Your task to perform on an android device: turn on translation in the chrome app Image 0: 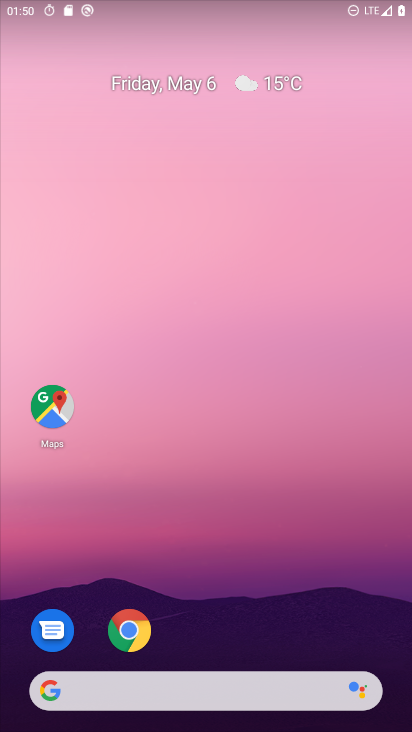
Step 0: click (142, 619)
Your task to perform on an android device: turn on translation in the chrome app Image 1: 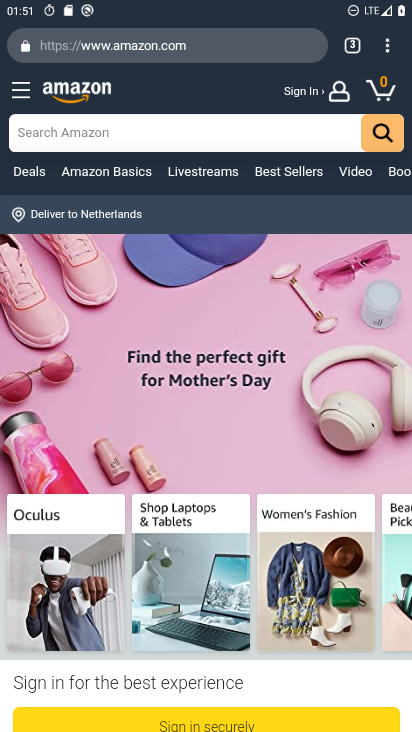
Step 1: drag from (389, 37) to (255, 608)
Your task to perform on an android device: turn on translation in the chrome app Image 2: 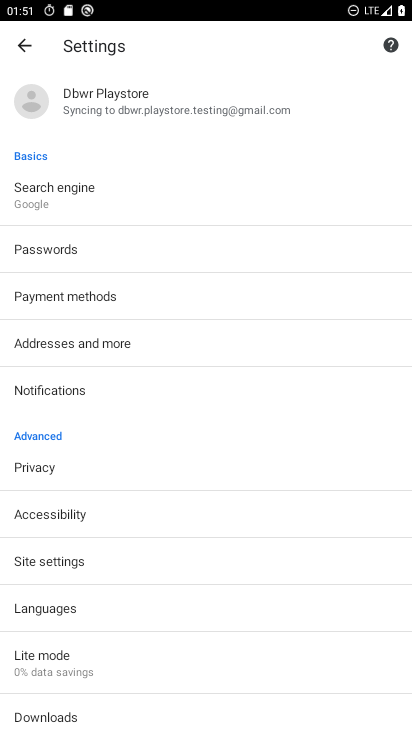
Step 2: click (93, 611)
Your task to perform on an android device: turn on translation in the chrome app Image 3: 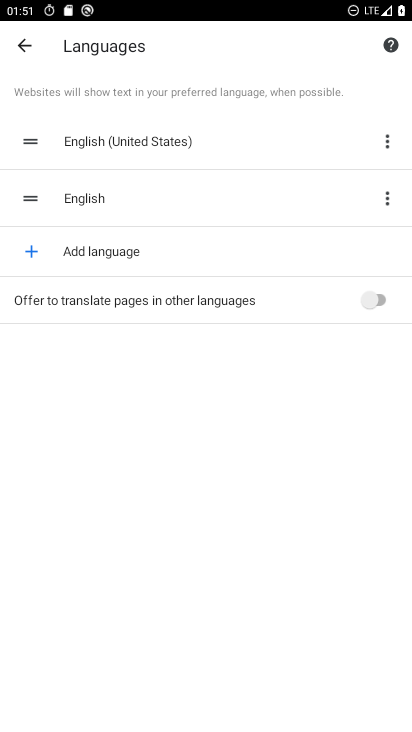
Step 3: click (376, 295)
Your task to perform on an android device: turn on translation in the chrome app Image 4: 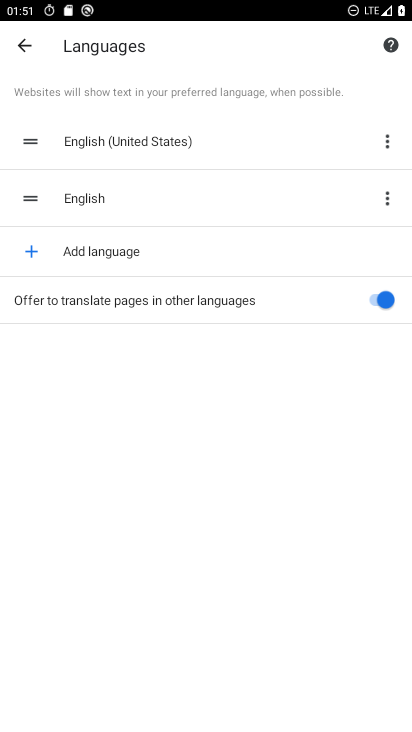
Step 4: task complete